Your task to perform on an android device: Open battery settings Image 0: 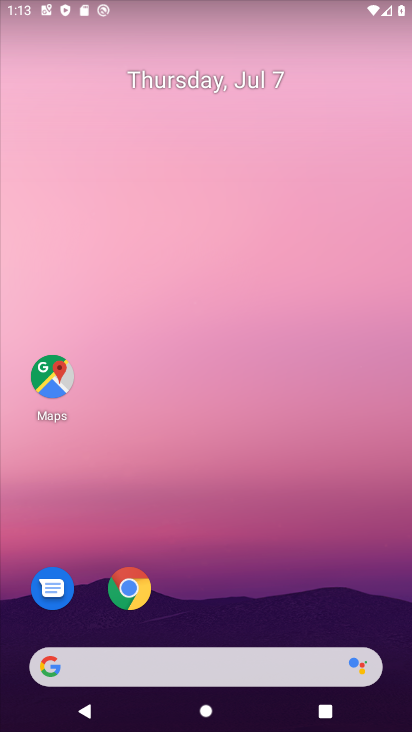
Step 0: drag from (333, 587) to (338, 286)
Your task to perform on an android device: Open battery settings Image 1: 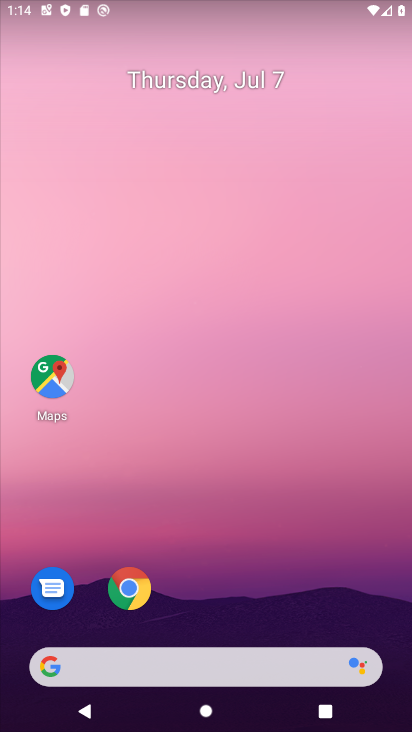
Step 1: drag from (246, 618) to (283, 196)
Your task to perform on an android device: Open battery settings Image 2: 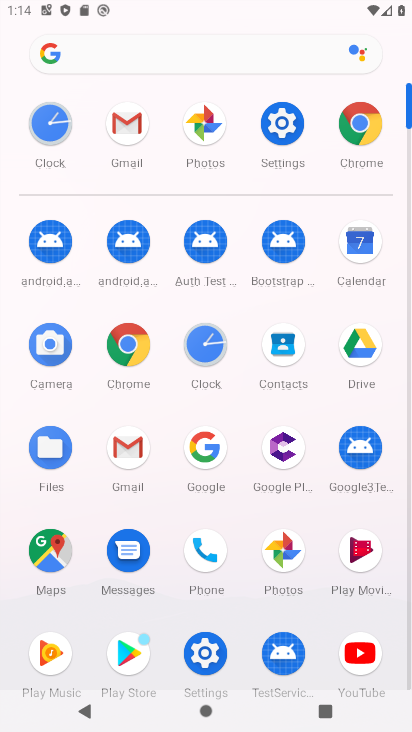
Step 2: click (287, 111)
Your task to perform on an android device: Open battery settings Image 3: 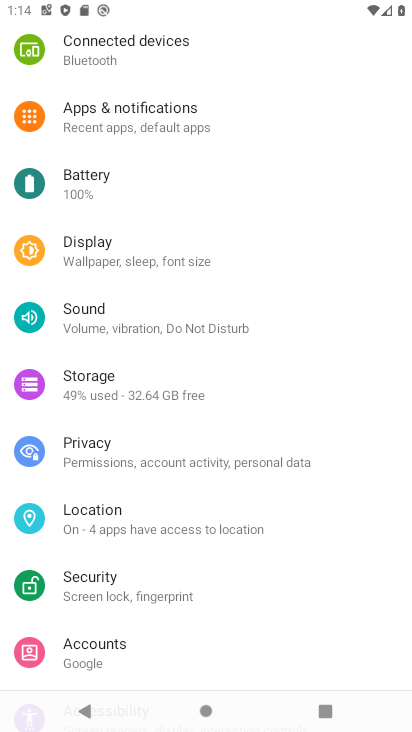
Step 3: click (114, 192)
Your task to perform on an android device: Open battery settings Image 4: 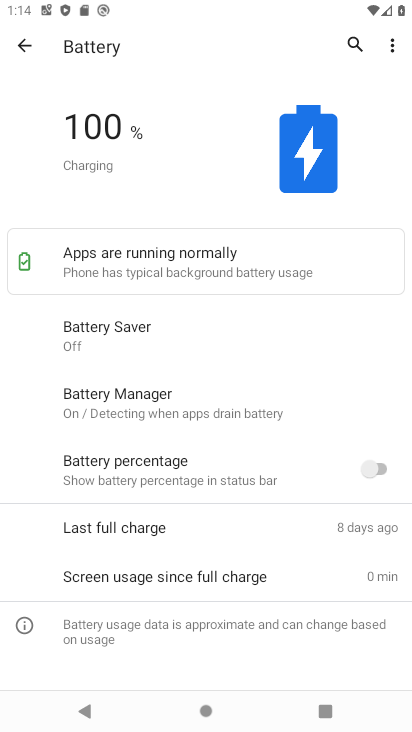
Step 4: task complete